Your task to perform on an android device: Go to sound settings Image 0: 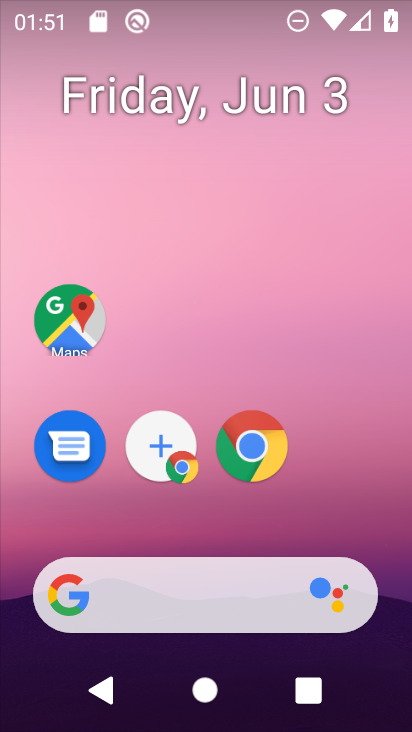
Step 0: drag from (258, 691) to (235, 126)
Your task to perform on an android device: Go to sound settings Image 1: 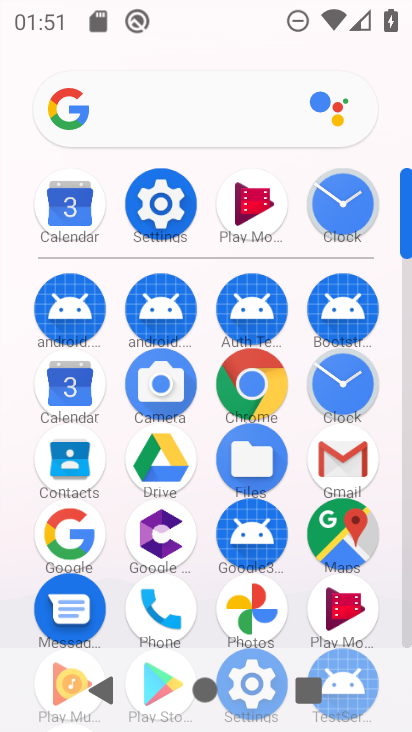
Step 1: click (156, 203)
Your task to perform on an android device: Go to sound settings Image 2: 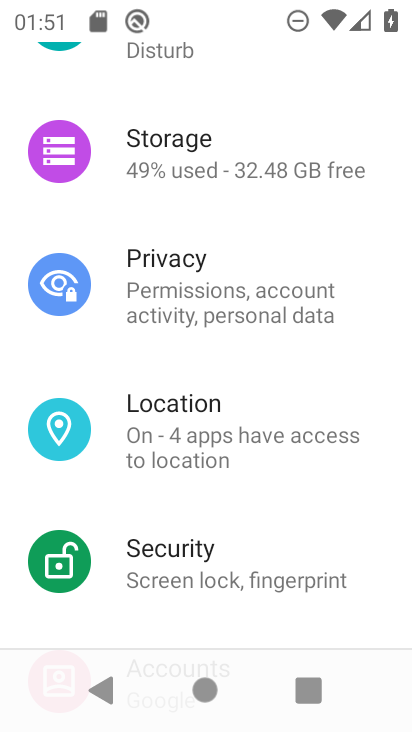
Step 2: drag from (299, 191) to (242, 540)
Your task to perform on an android device: Go to sound settings Image 3: 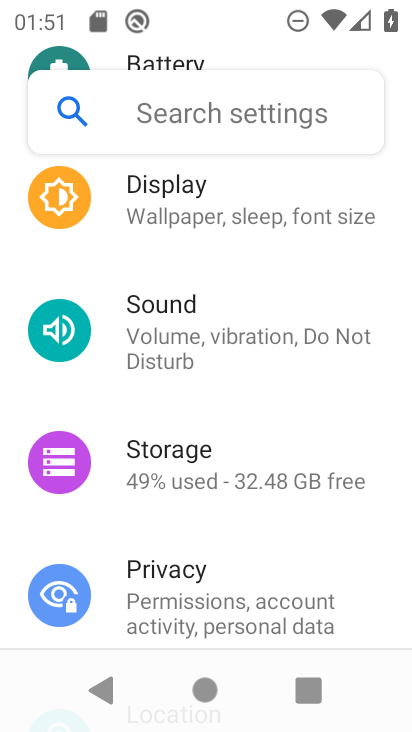
Step 3: click (300, 345)
Your task to perform on an android device: Go to sound settings Image 4: 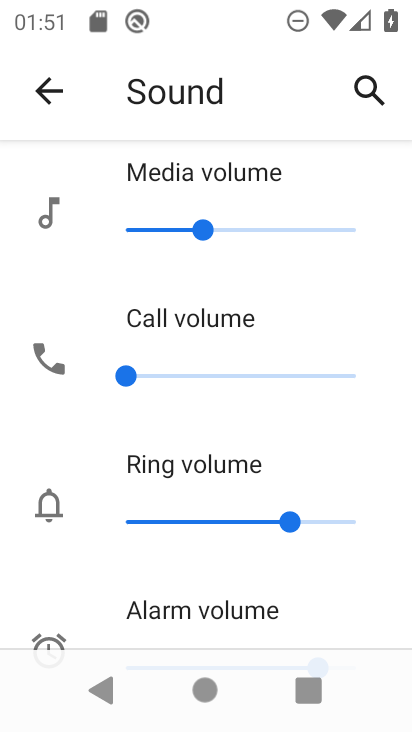
Step 4: task complete